Your task to perform on an android device: turn on improve location accuracy Image 0: 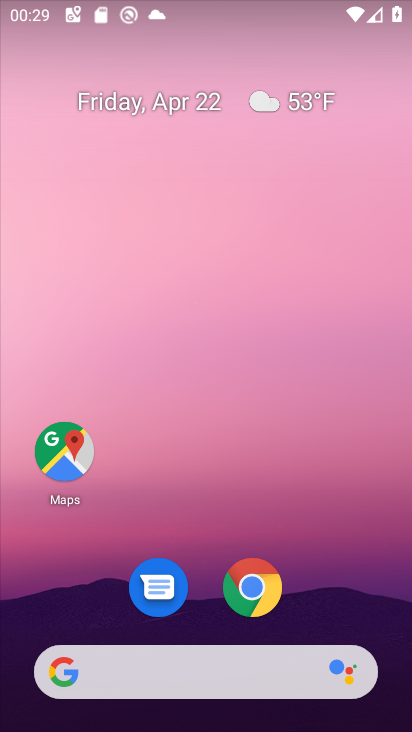
Step 0: drag from (317, 593) to (317, 224)
Your task to perform on an android device: turn on improve location accuracy Image 1: 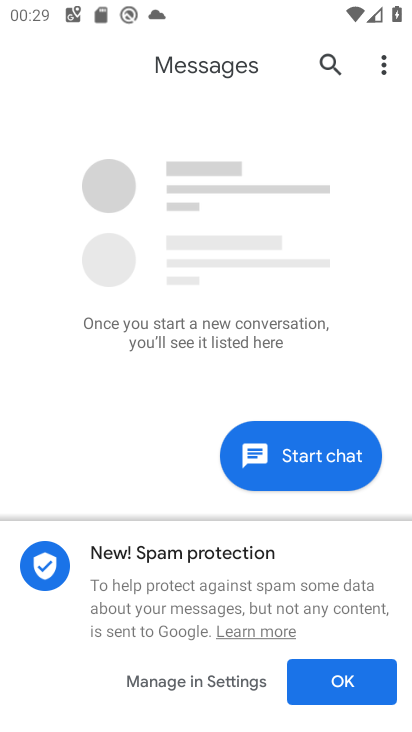
Step 1: press home button
Your task to perform on an android device: turn on improve location accuracy Image 2: 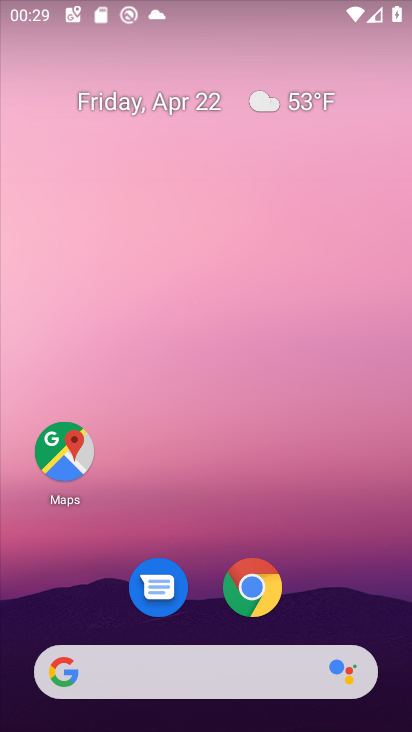
Step 2: drag from (319, 570) to (352, 69)
Your task to perform on an android device: turn on improve location accuracy Image 3: 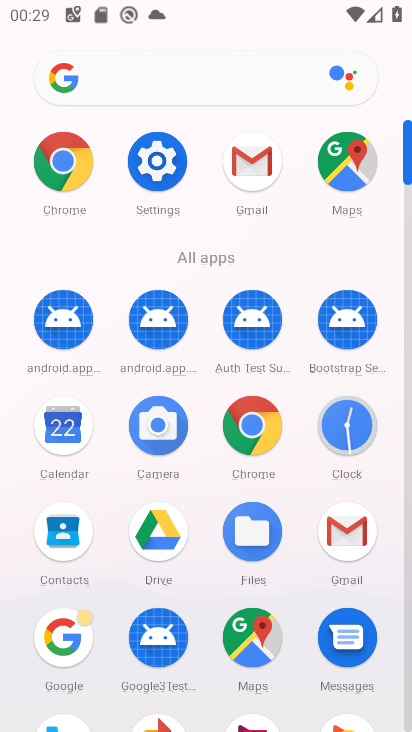
Step 3: click (168, 178)
Your task to perform on an android device: turn on improve location accuracy Image 4: 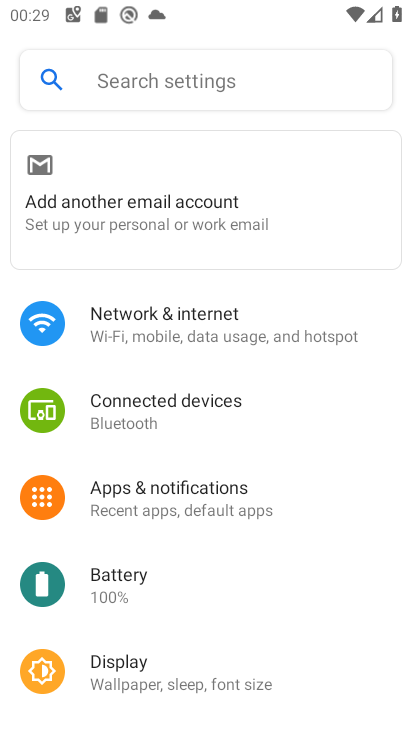
Step 4: drag from (231, 649) to (224, 323)
Your task to perform on an android device: turn on improve location accuracy Image 5: 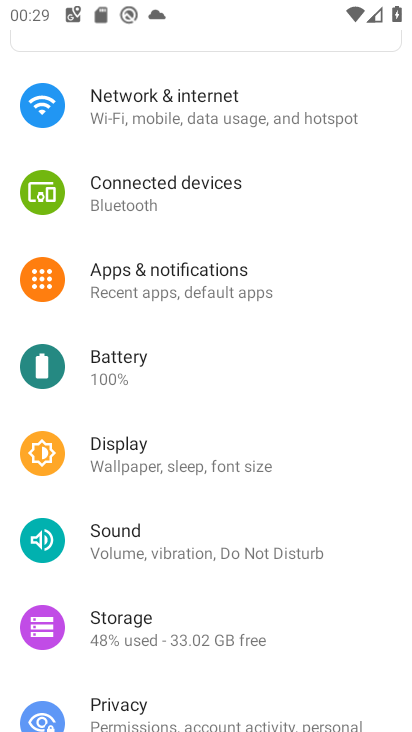
Step 5: drag from (196, 686) to (236, 264)
Your task to perform on an android device: turn on improve location accuracy Image 6: 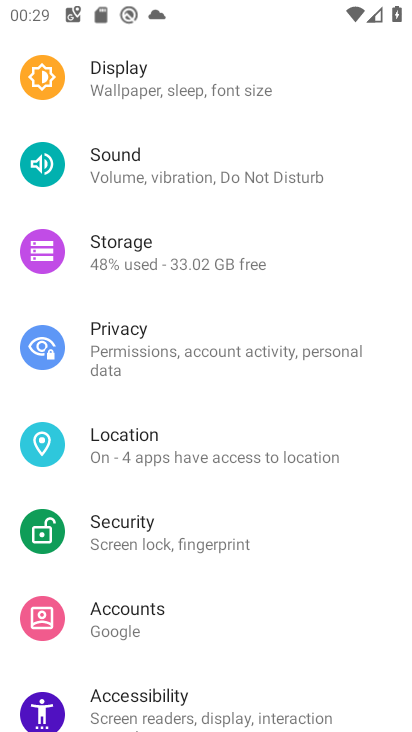
Step 6: click (164, 448)
Your task to perform on an android device: turn on improve location accuracy Image 7: 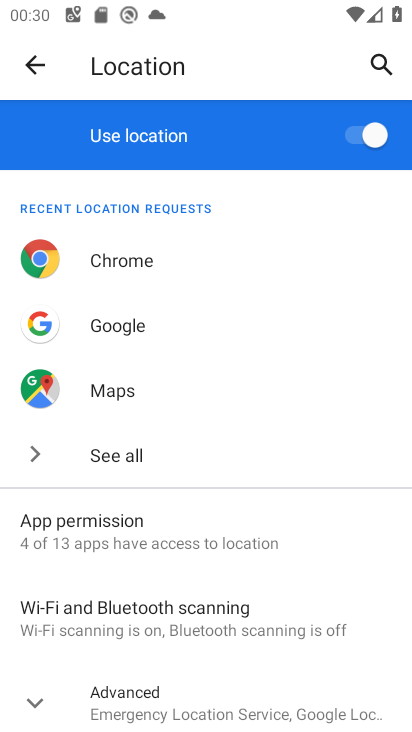
Step 7: drag from (210, 632) to (249, 385)
Your task to perform on an android device: turn on improve location accuracy Image 8: 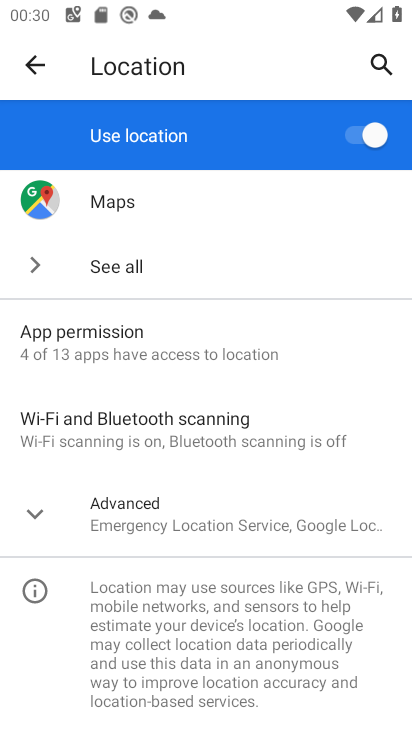
Step 8: click (36, 517)
Your task to perform on an android device: turn on improve location accuracy Image 9: 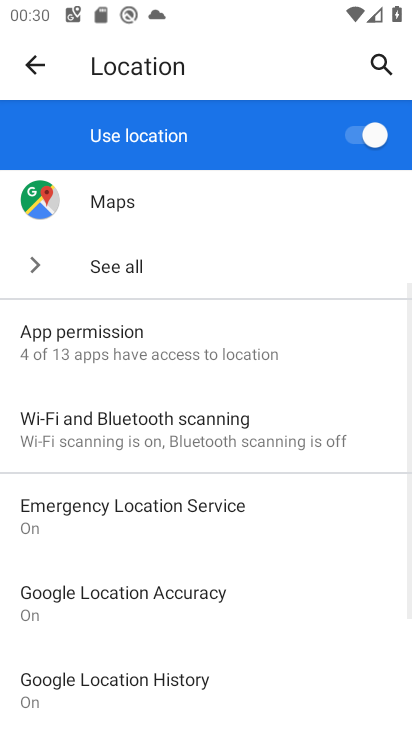
Step 9: click (161, 602)
Your task to perform on an android device: turn on improve location accuracy Image 10: 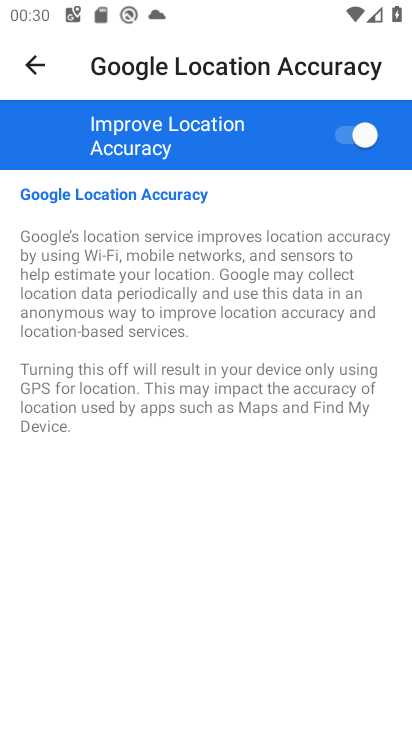
Step 10: task complete